Your task to perform on an android device: turn off priority inbox in the gmail app Image 0: 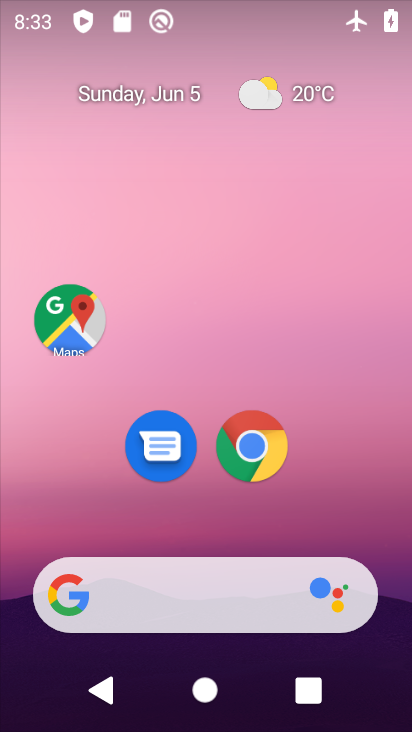
Step 0: drag from (222, 526) to (235, 121)
Your task to perform on an android device: turn off priority inbox in the gmail app Image 1: 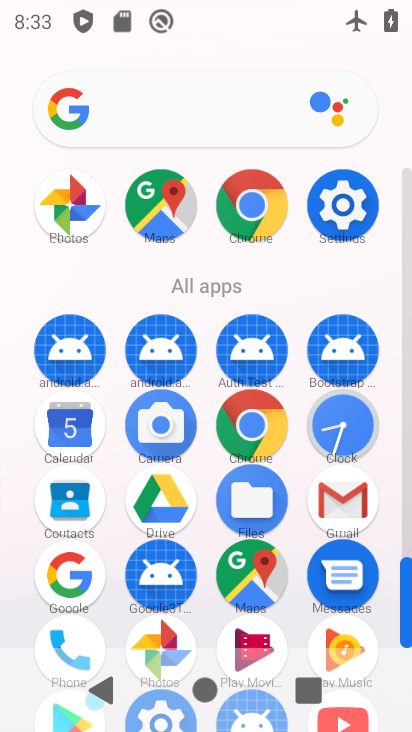
Step 1: click (339, 517)
Your task to perform on an android device: turn off priority inbox in the gmail app Image 2: 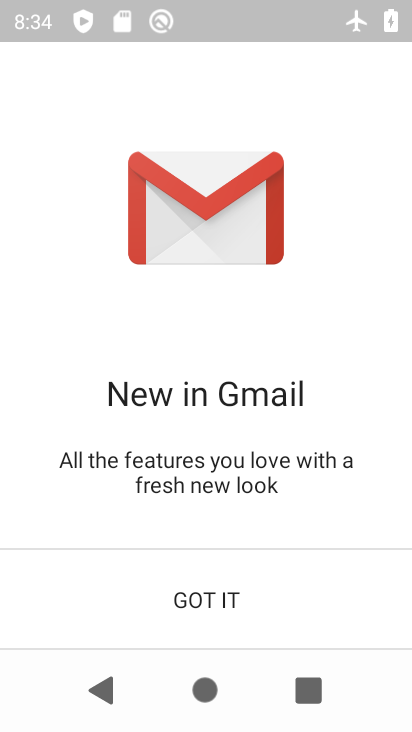
Step 2: click (140, 581)
Your task to perform on an android device: turn off priority inbox in the gmail app Image 3: 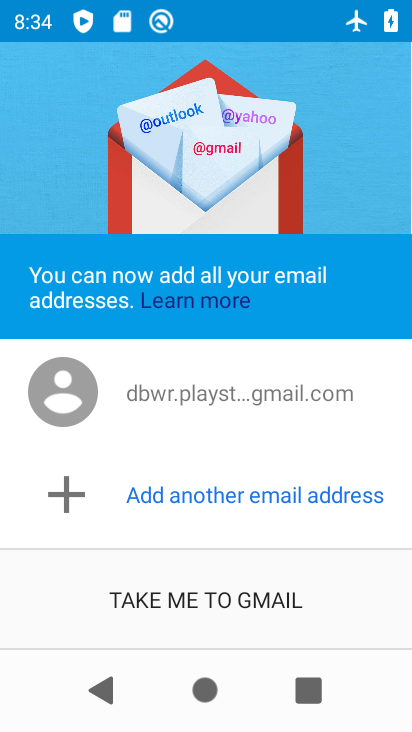
Step 3: click (164, 593)
Your task to perform on an android device: turn off priority inbox in the gmail app Image 4: 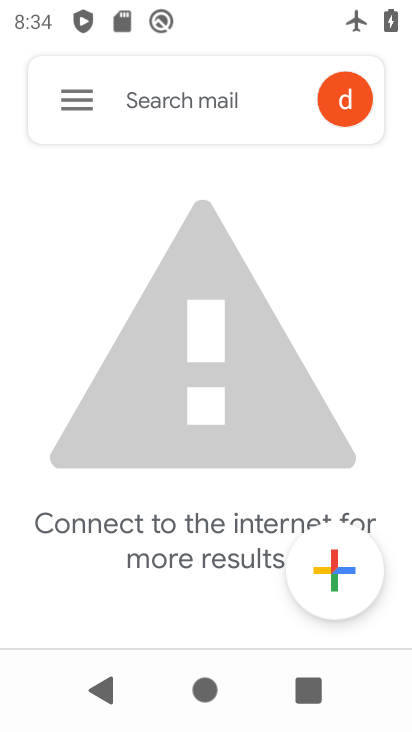
Step 4: click (75, 119)
Your task to perform on an android device: turn off priority inbox in the gmail app Image 5: 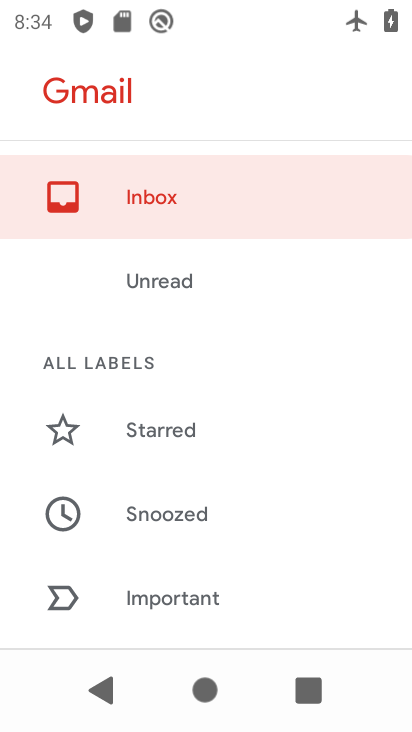
Step 5: drag from (169, 490) to (187, 239)
Your task to perform on an android device: turn off priority inbox in the gmail app Image 6: 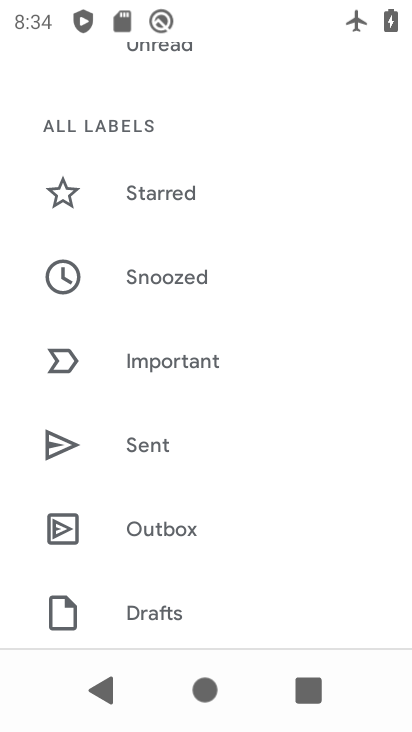
Step 6: drag from (229, 492) to (223, 266)
Your task to perform on an android device: turn off priority inbox in the gmail app Image 7: 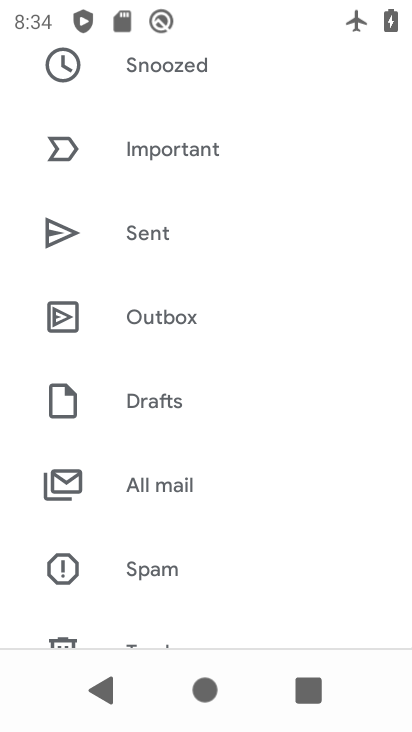
Step 7: drag from (223, 504) to (263, 145)
Your task to perform on an android device: turn off priority inbox in the gmail app Image 8: 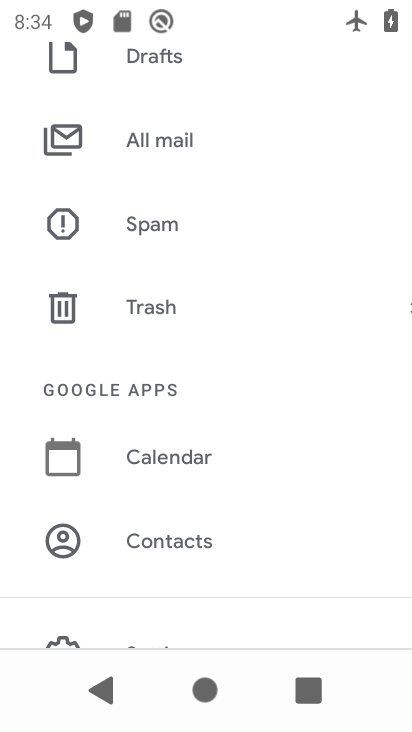
Step 8: drag from (196, 549) to (213, 339)
Your task to perform on an android device: turn off priority inbox in the gmail app Image 9: 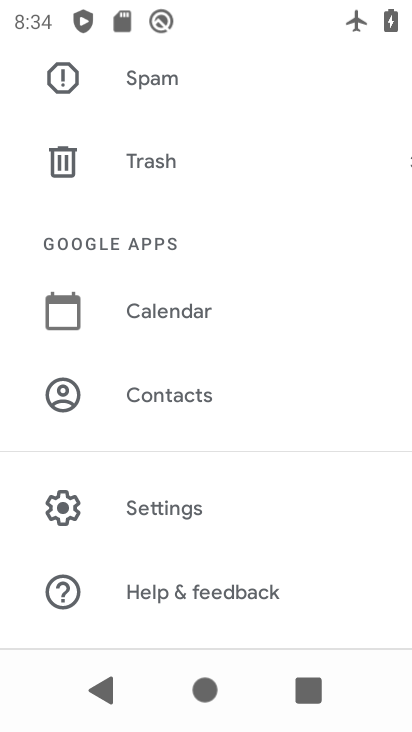
Step 9: click (170, 504)
Your task to perform on an android device: turn off priority inbox in the gmail app Image 10: 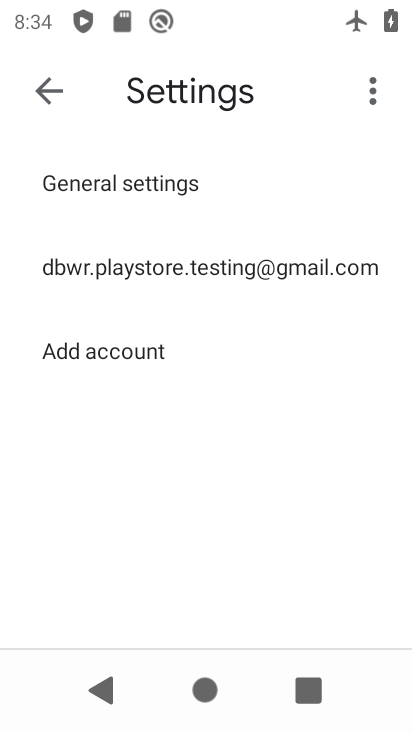
Step 10: click (95, 271)
Your task to perform on an android device: turn off priority inbox in the gmail app Image 11: 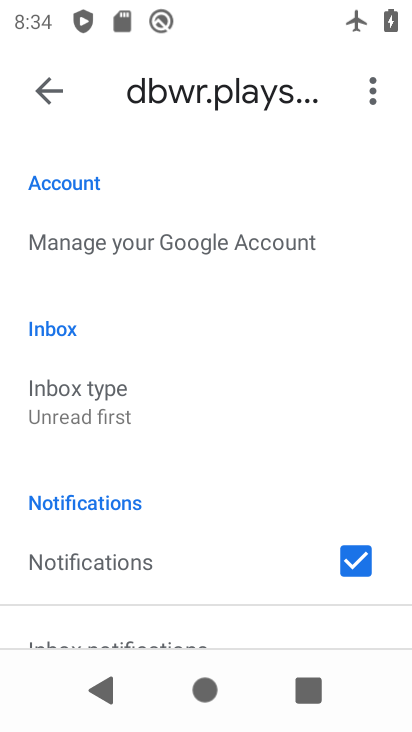
Step 11: drag from (126, 565) to (173, 260)
Your task to perform on an android device: turn off priority inbox in the gmail app Image 12: 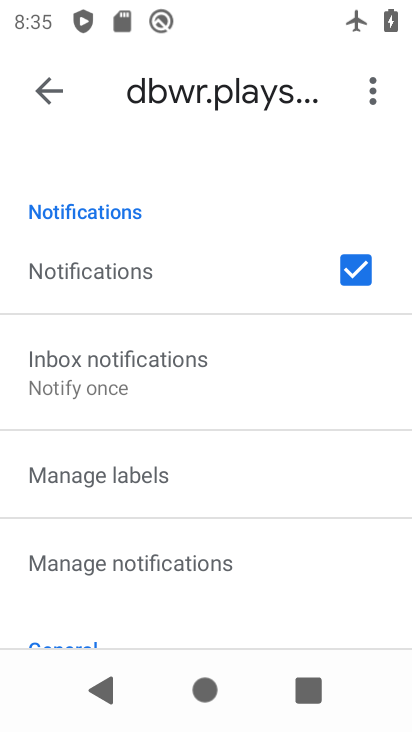
Step 12: drag from (192, 607) to (236, 303)
Your task to perform on an android device: turn off priority inbox in the gmail app Image 13: 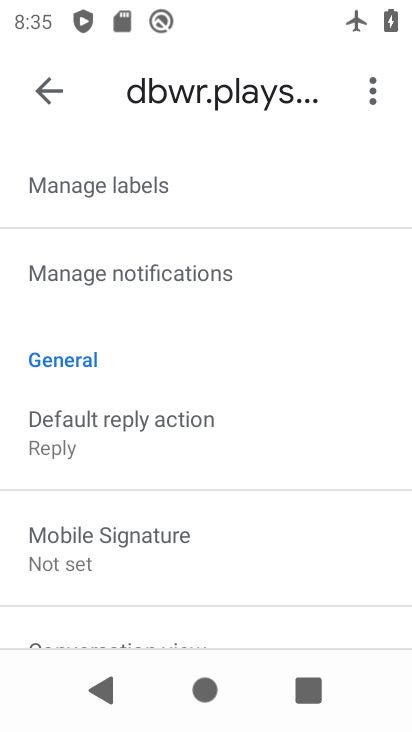
Step 13: drag from (123, 545) to (175, 248)
Your task to perform on an android device: turn off priority inbox in the gmail app Image 14: 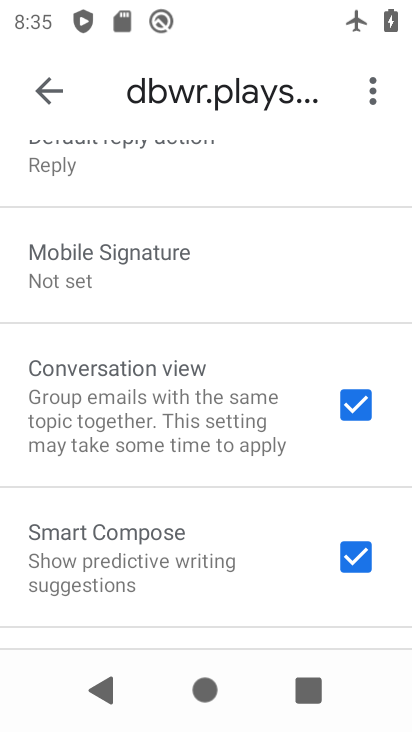
Step 14: drag from (173, 566) to (174, 260)
Your task to perform on an android device: turn off priority inbox in the gmail app Image 15: 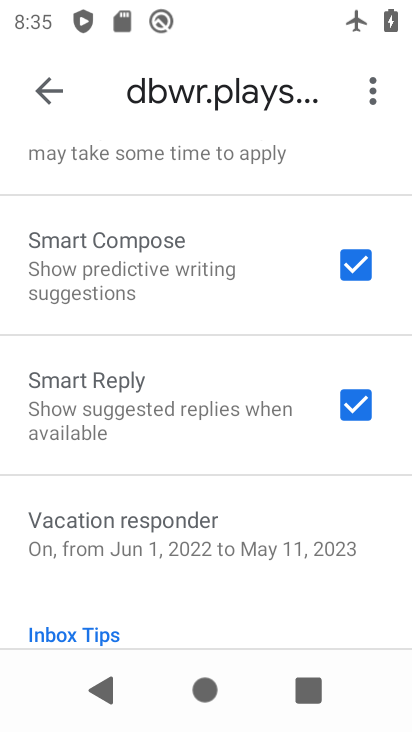
Step 15: drag from (187, 244) to (185, 531)
Your task to perform on an android device: turn off priority inbox in the gmail app Image 16: 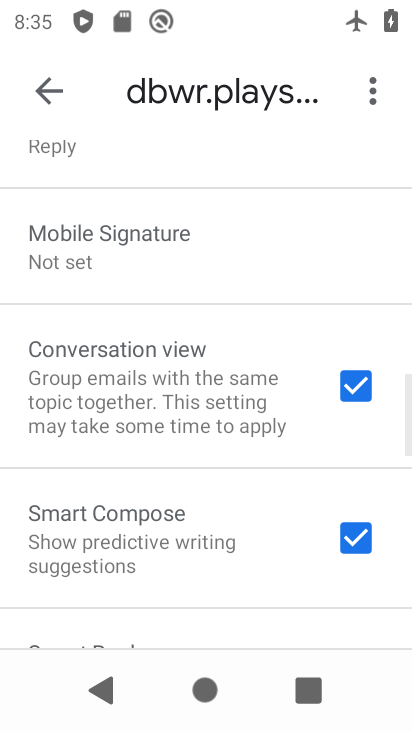
Step 16: drag from (174, 337) to (202, 545)
Your task to perform on an android device: turn off priority inbox in the gmail app Image 17: 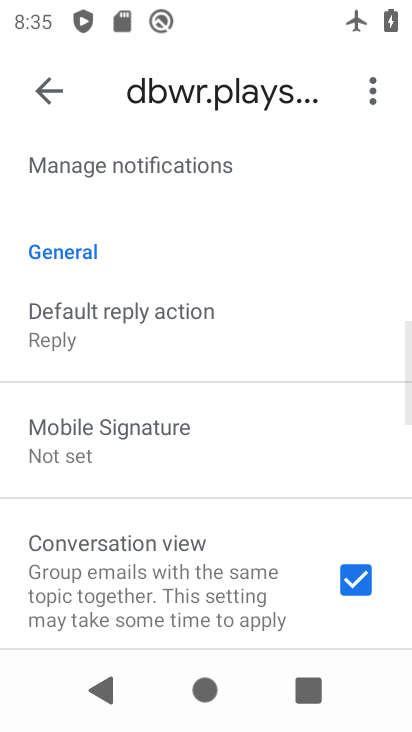
Step 17: drag from (208, 277) to (229, 520)
Your task to perform on an android device: turn off priority inbox in the gmail app Image 18: 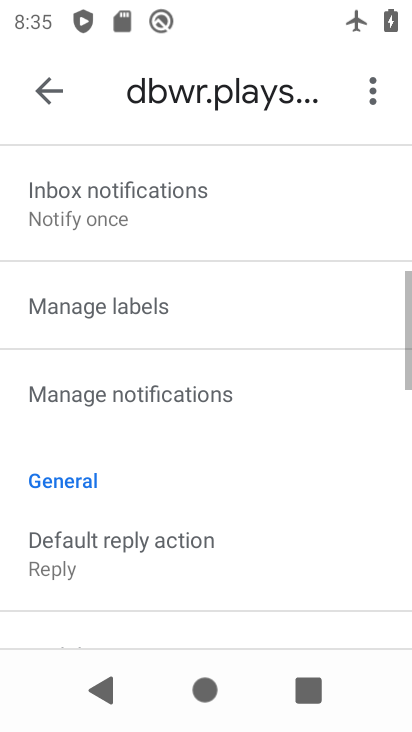
Step 18: drag from (214, 279) to (238, 485)
Your task to perform on an android device: turn off priority inbox in the gmail app Image 19: 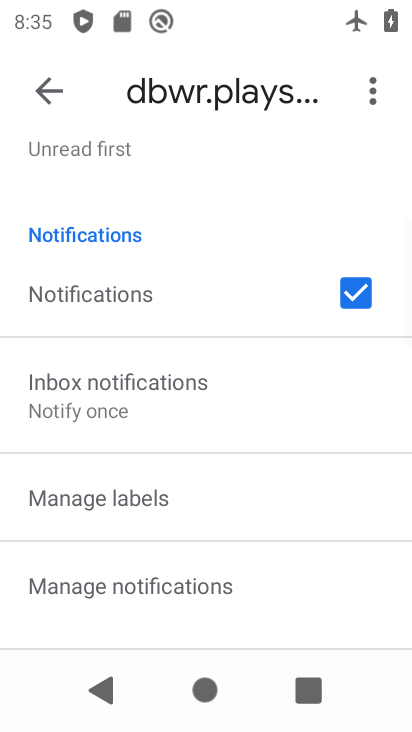
Step 19: drag from (178, 190) to (221, 471)
Your task to perform on an android device: turn off priority inbox in the gmail app Image 20: 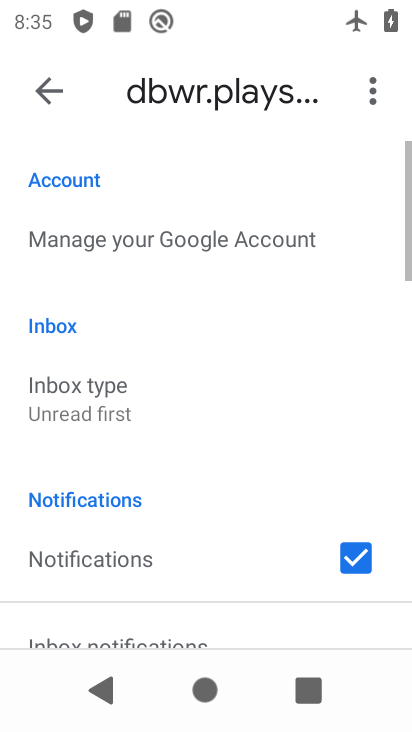
Step 20: drag from (199, 283) to (210, 526)
Your task to perform on an android device: turn off priority inbox in the gmail app Image 21: 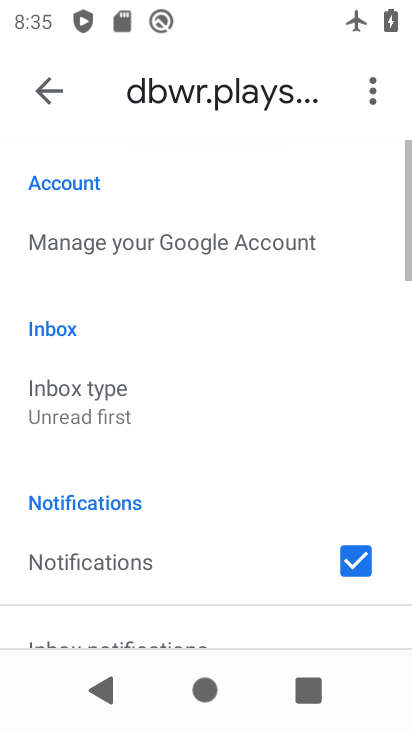
Step 21: drag from (202, 489) to (200, 260)
Your task to perform on an android device: turn off priority inbox in the gmail app Image 22: 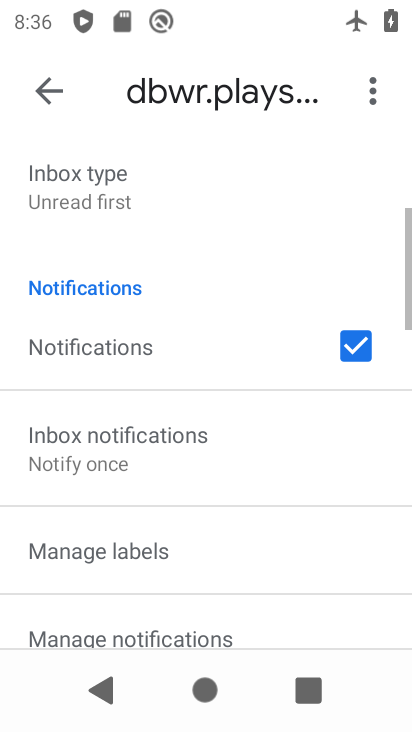
Step 22: drag from (183, 476) to (198, 283)
Your task to perform on an android device: turn off priority inbox in the gmail app Image 23: 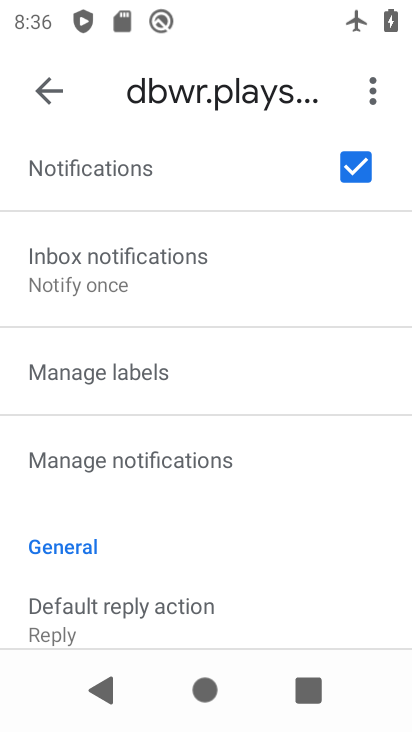
Step 23: drag from (242, 556) to (263, 248)
Your task to perform on an android device: turn off priority inbox in the gmail app Image 24: 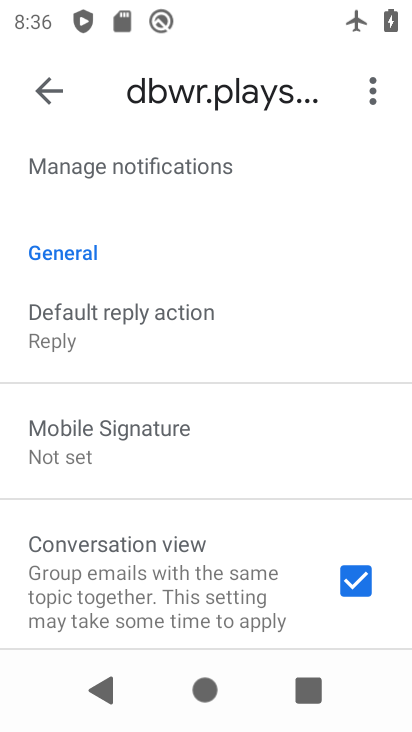
Step 24: drag from (164, 211) to (215, 606)
Your task to perform on an android device: turn off priority inbox in the gmail app Image 25: 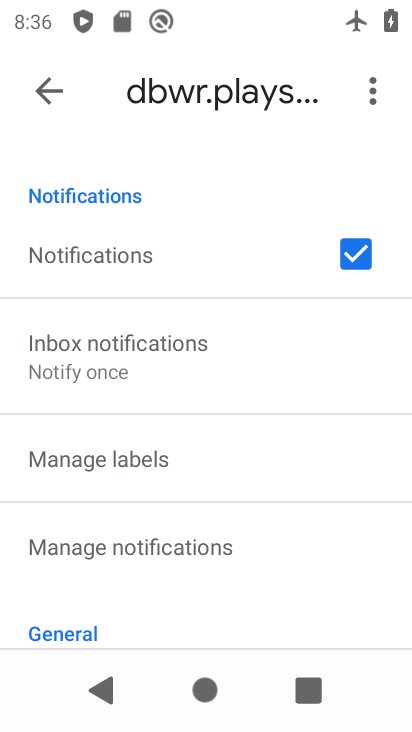
Step 25: drag from (157, 233) to (170, 727)
Your task to perform on an android device: turn off priority inbox in the gmail app Image 26: 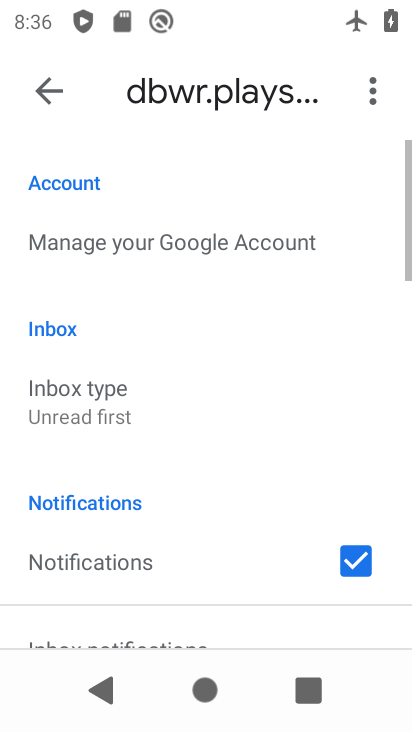
Step 26: click (149, 397)
Your task to perform on an android device: turn off priority inbox in the gmail app Image 27: 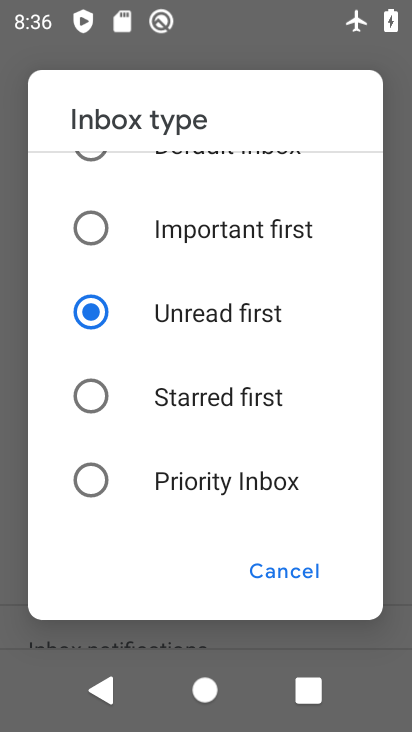
Step 27: task complete